Your task to perform on an android device: toggle notifications settings in the gmail app Image 0: 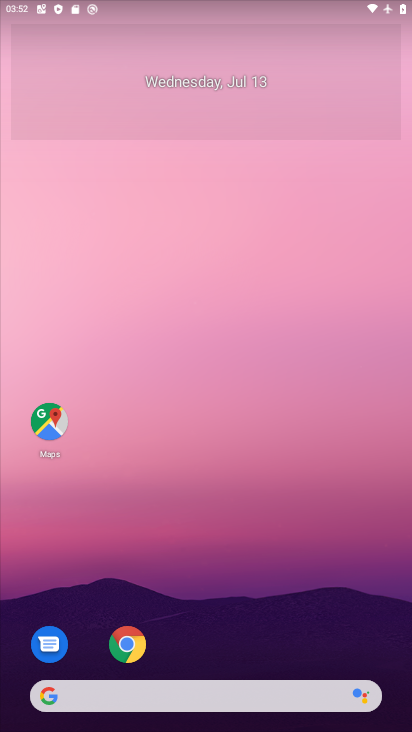
Step 0: drag from (235, 614) to (201, 115)
Your task to perform on an android device: toggle notifications settings in the gmail app Image 1: 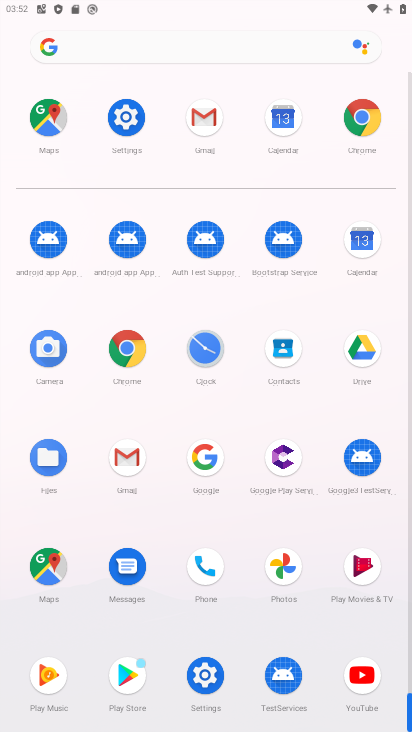
Step 1: click (216, 121)
Your task to perform on an android device: toggle notifications settings in the gmail app Image 2: 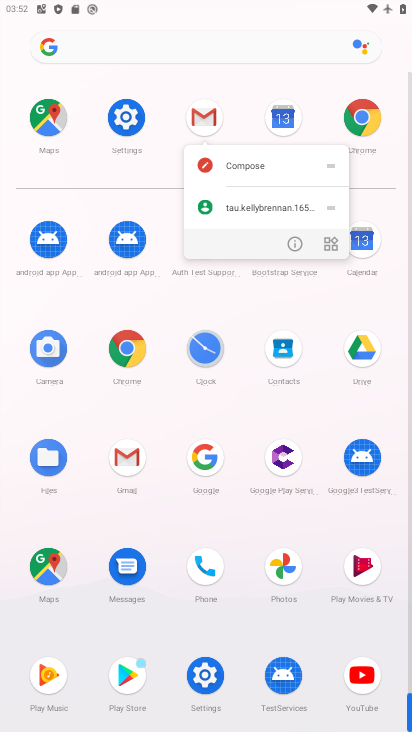
Step 2: click (209, 123)
Your task to perform on an android device: toggle notifications settings in the gmail app Image 3: 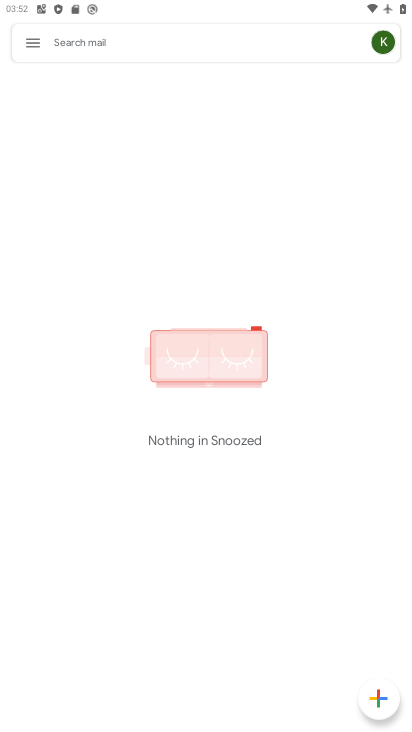
Step 3: click (27, 44)
Your task to perform on an android device: toggle notifications settings in the gmail app Image 4: 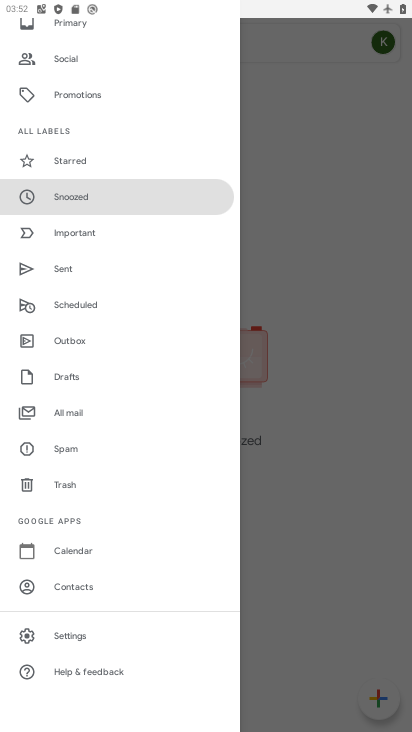
Step 4: click (74, 643)
Your task to perform on an android device: toggle notifications settings in the gmail app Image 5: 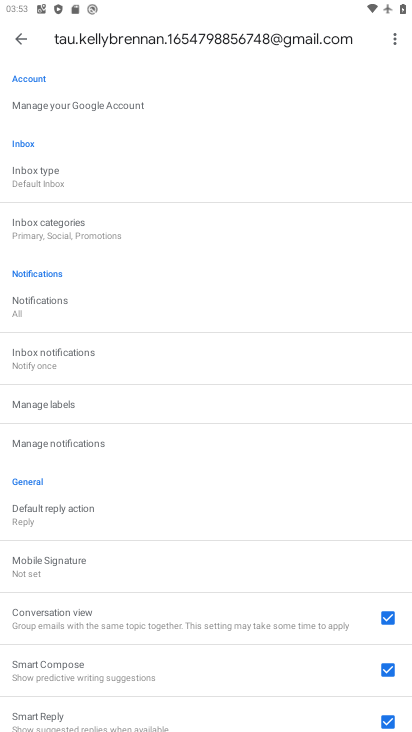
Step 5: click (64, 453)
Your task to perform on an android device: toggle notifications settings in the gmail app Image 6: 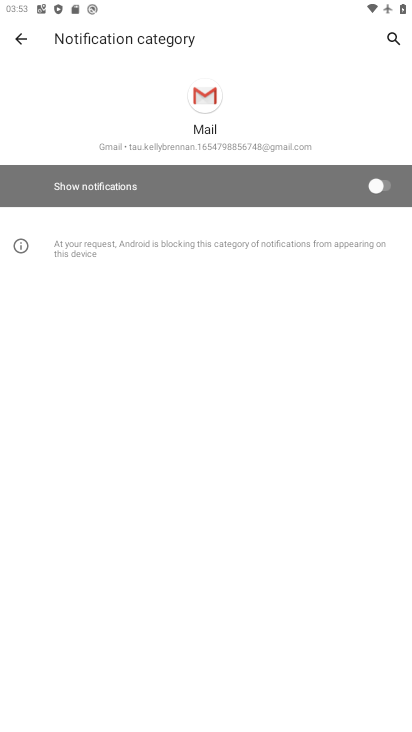
Step 6: click (378, 188)
Your task to perform on an android device: toggle notifications settings in the gmail app Image 7: 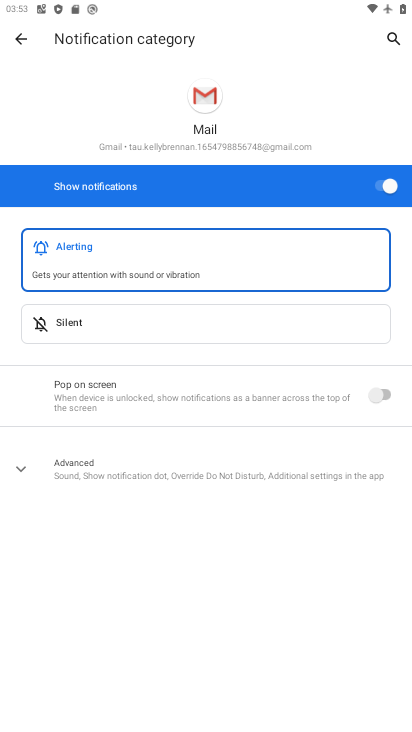
Step 7: task complete